Your task to perform on an android device: Is it going to rain today? Image 0: 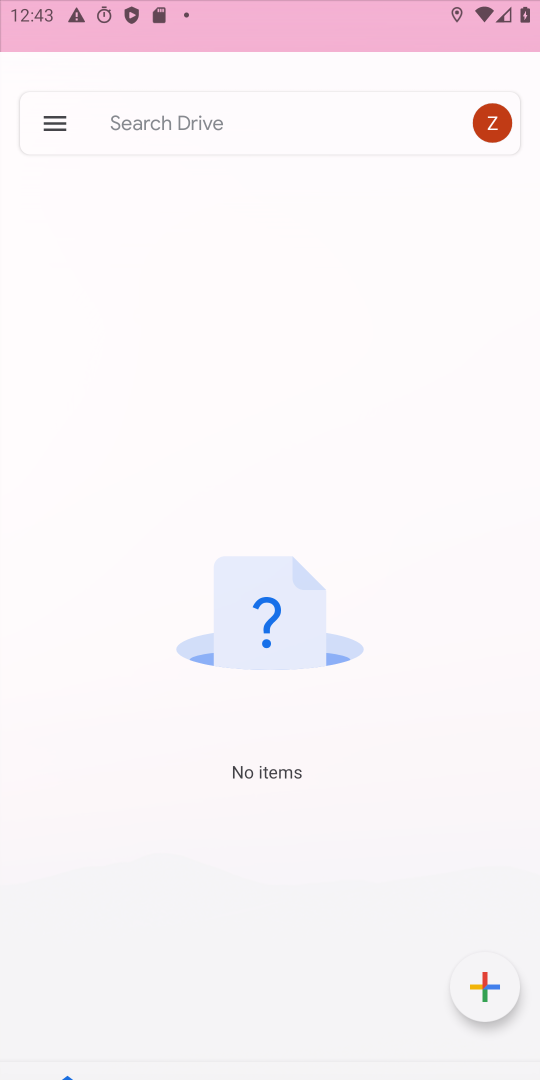
Step 0: press home button
Your task to perform on an android device: Is it going to rain today? Image 1: 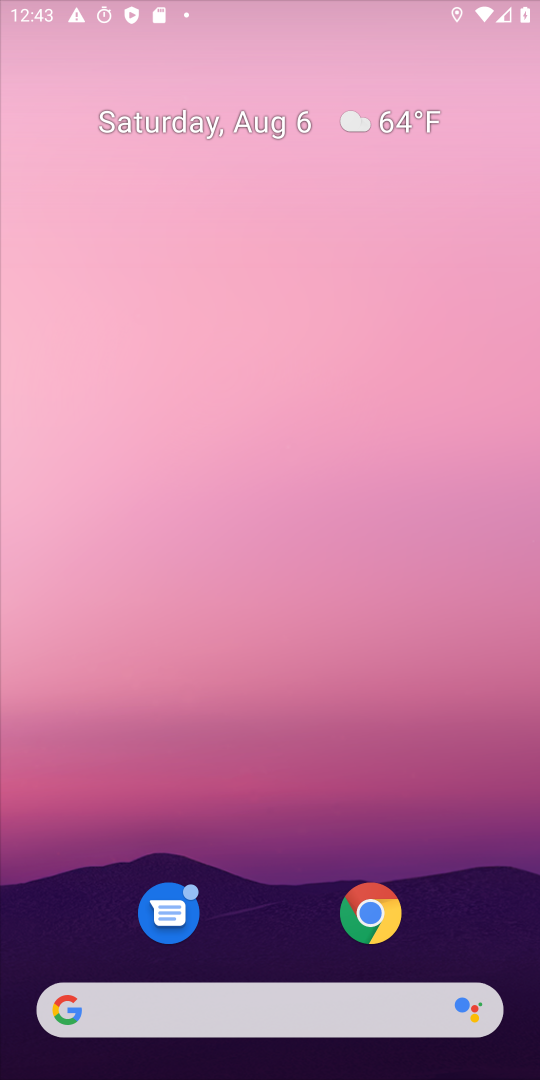
Step 1: press home button
Your task to perform on an android device: Is it going to rain today? Image 2: 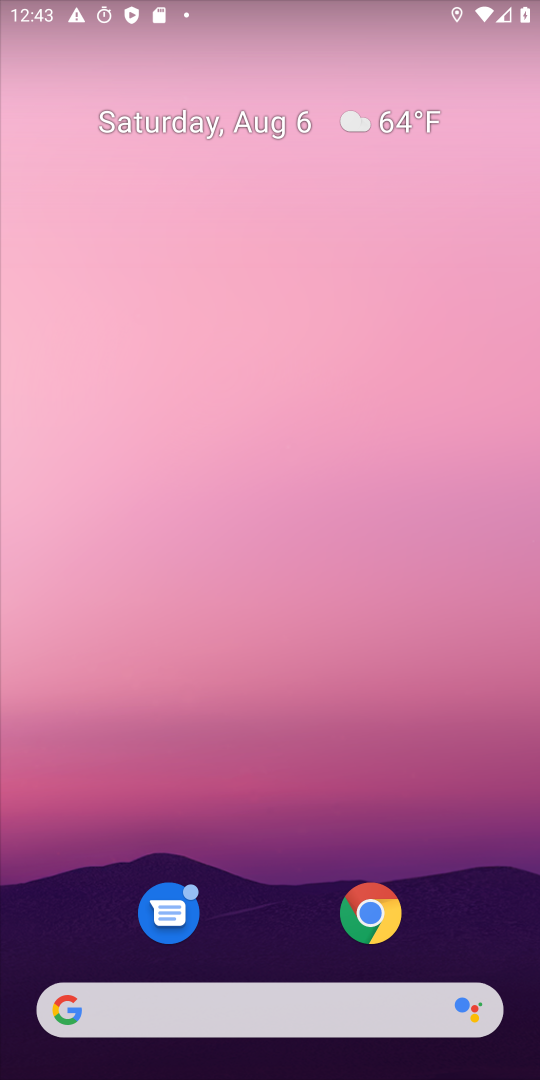
Step 2: click (248, 1004)
Your task to perform on an android device: Is it going to rain today? Image 3: 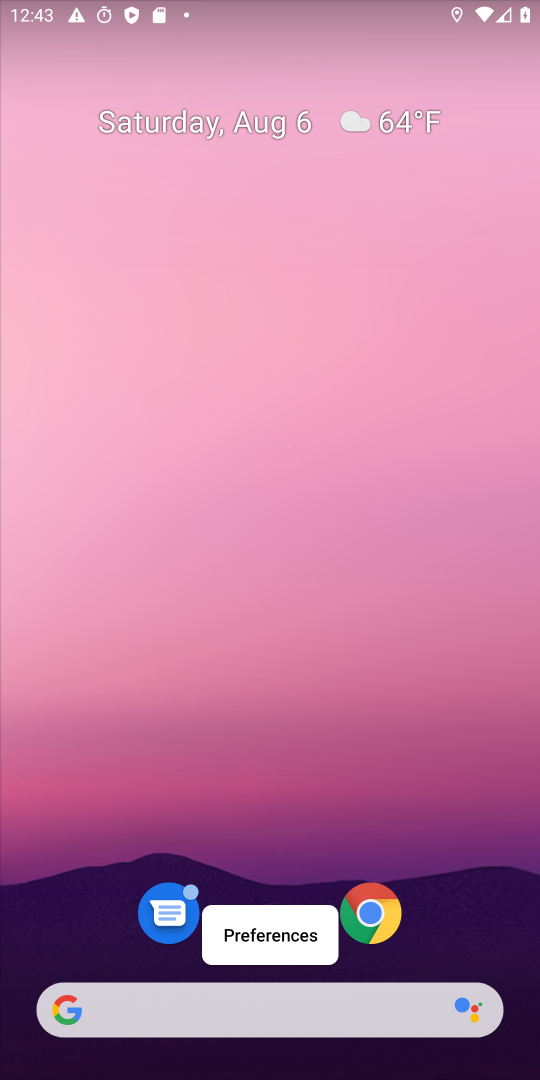
Step 3: click (300, 1003)
Your task to perform on an android device: Is it going to rain today? Image 4: 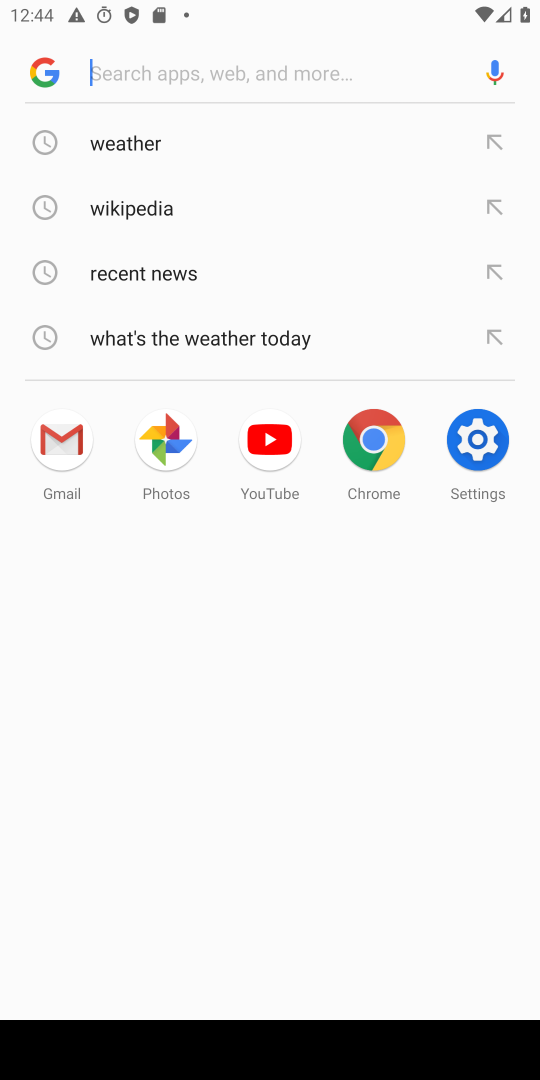
Step 4: click (175, 135)
Your task to perform on an android device: Is it going to rain today? Image 5: 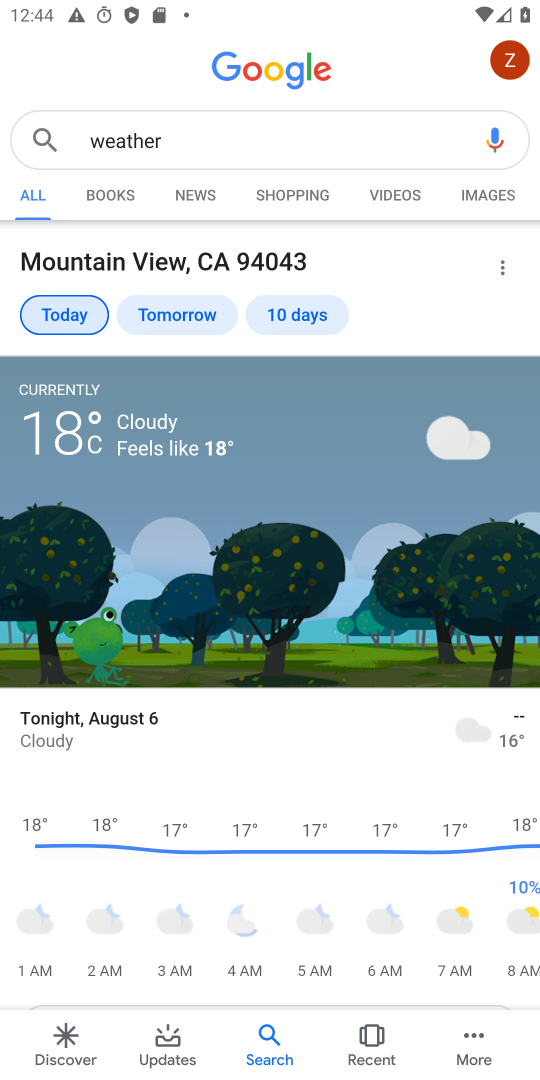
Step 5: task complete